Your task to perform on an android device: Open the phone app and click the voicemail tab. Image 0: 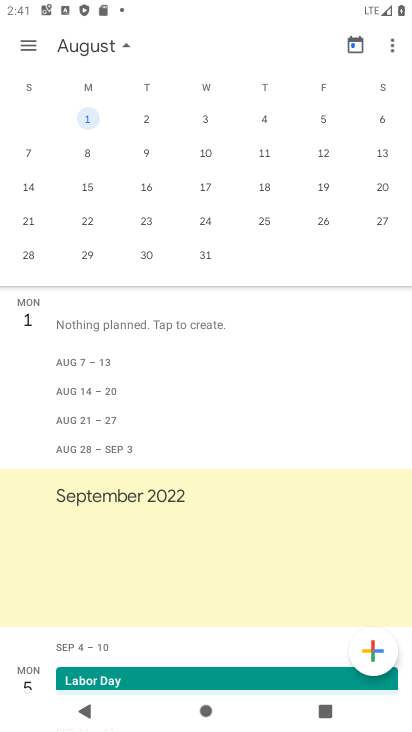
Step 0: press home button
Your task to perform on an android device: Open the phone app and click the voicemail tab. Image 1: 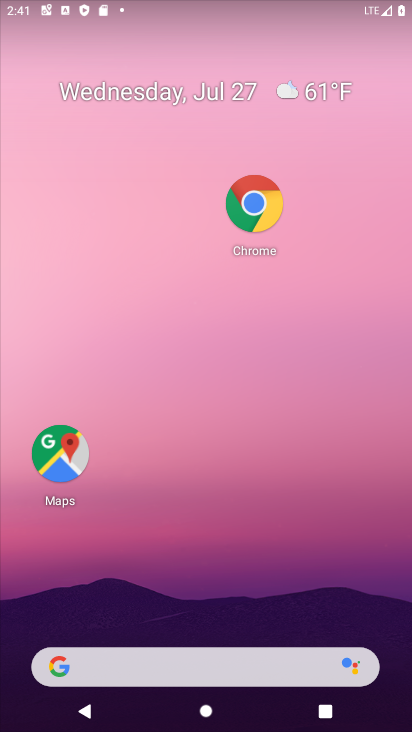
Step 1: drag from (204, 612) to (214, 225)
Your task to perform on an android device: Open the phone app and click the voicemail tab. Image 2: 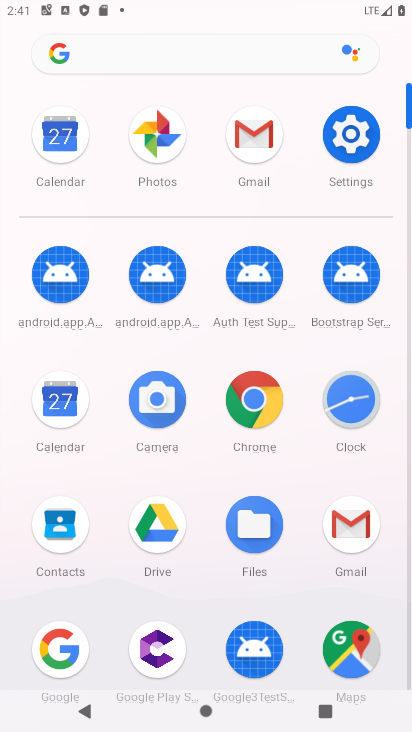
Step 2: drag from (209, 483) to (214, 209)
Your task to perform on an android device: Open the phone app and click the voicemail tab. Image 3: 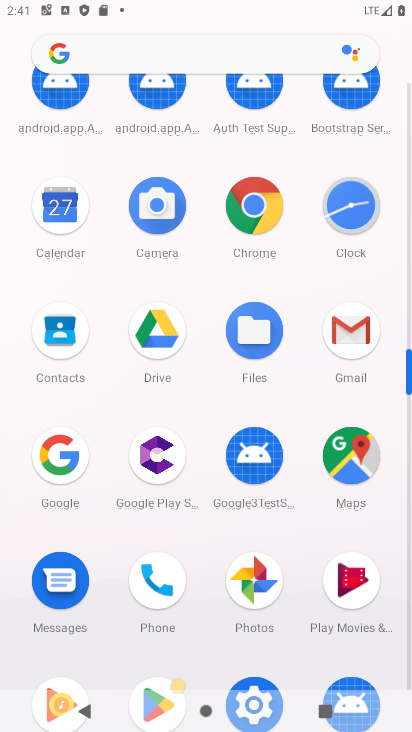
Step 3: click (159, 579)
Your task to perform on an android device: Open the phone app and click the voicemail tab. Image 4: 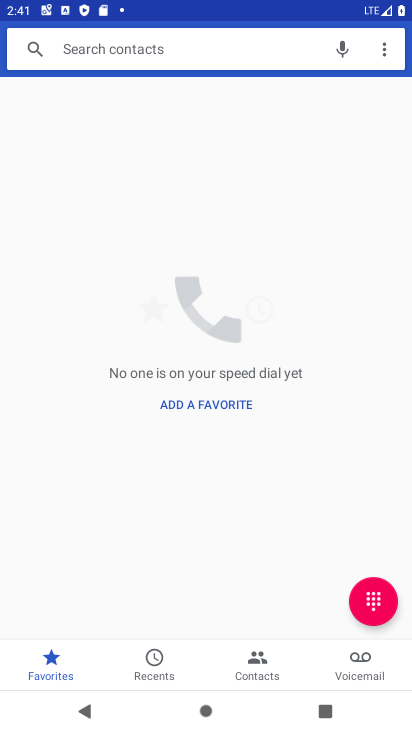
Step 4: click (364, 664)
Your task to perform on an android device: Open the phone app and click the voicemail tab. Image 5: 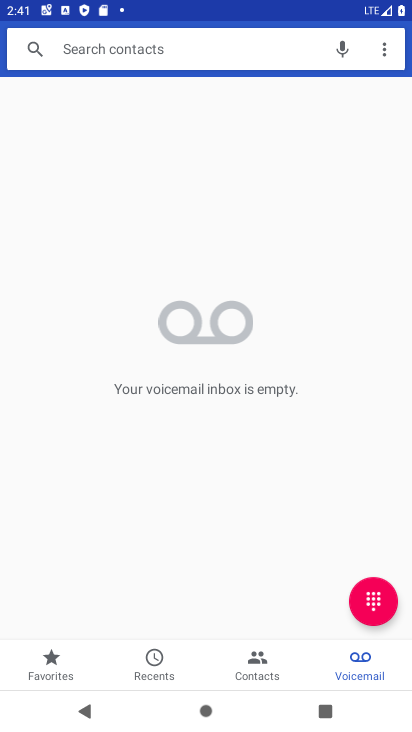
Step 5: task complete